Your task to perform on an android device: Open the calendar and show me this week's events? Image 0: 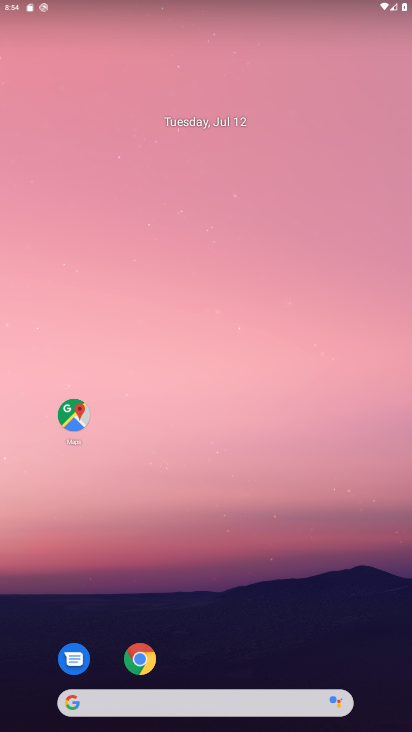
Step 0: drag from (244, 609) to (217, 109)
Your task to perform on an android device: Open the calendar and show me this week's events? Image 1: 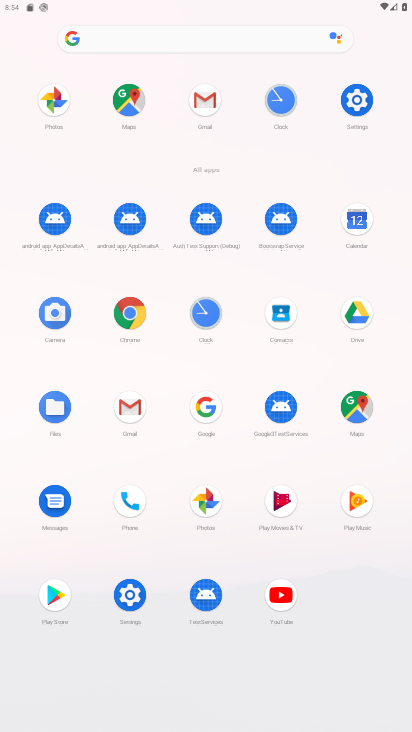
Step 1: click (355, 220)
Your task to perform on an android device: Open the calendar and show me this week's events? Image 2: 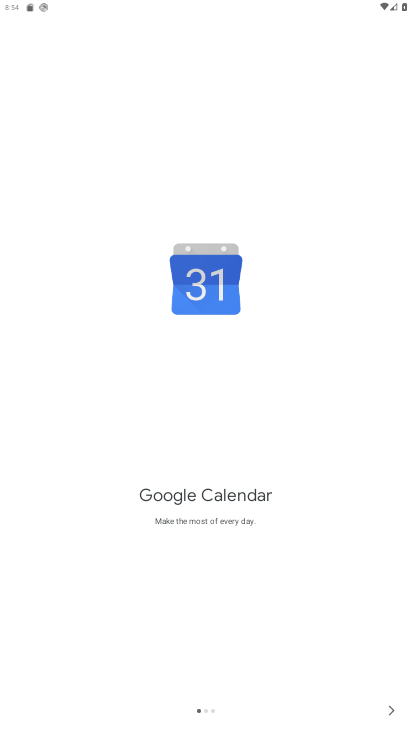
Step 2: click (384, 711)
Your task to perform on an android device: Open the calendar and show me this week's events? Image 3: 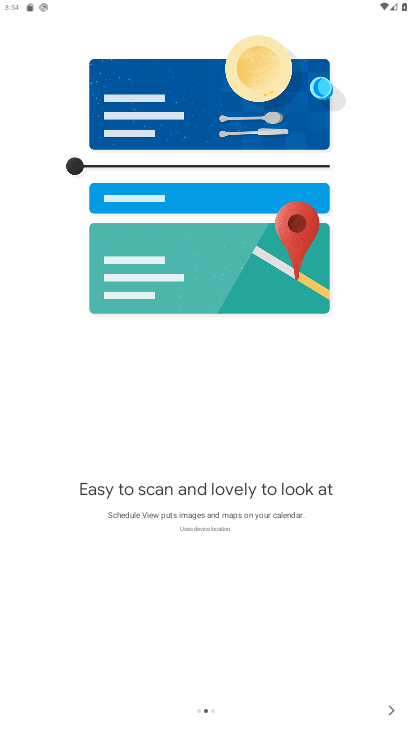
Step 3: click (384, 711)
Your task to perform on an android device: Open the calendar and show me this week's events? Image 4: 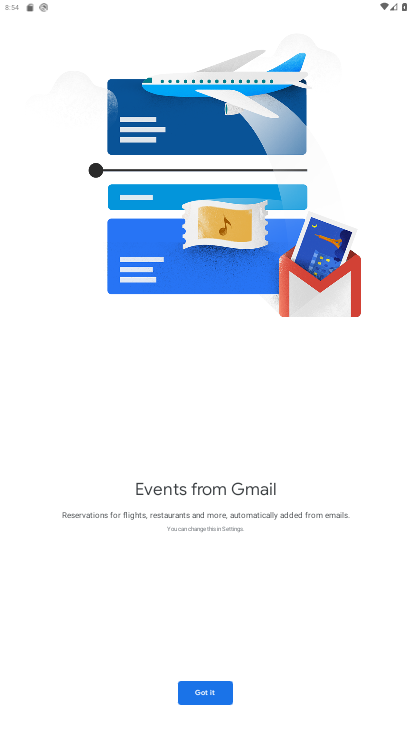
Step 4: click (209, 692)
Your task to perform on an android device: Open the calendar and show me this week's events? Image 5: 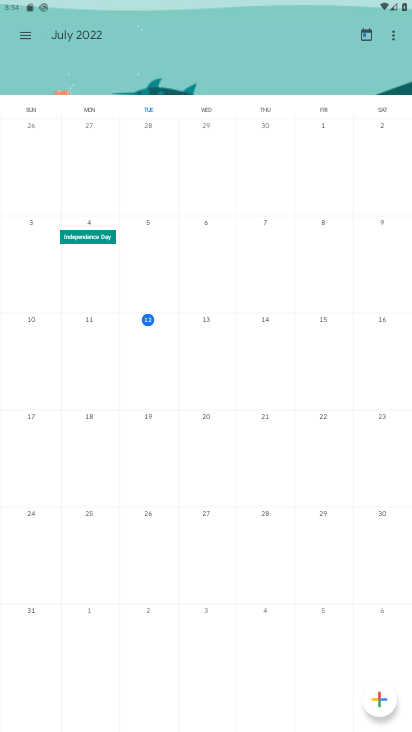
Step 5: click (139, 318)
Your task to perform on an android device: Open the calendar and show me this week's events? Image 6: 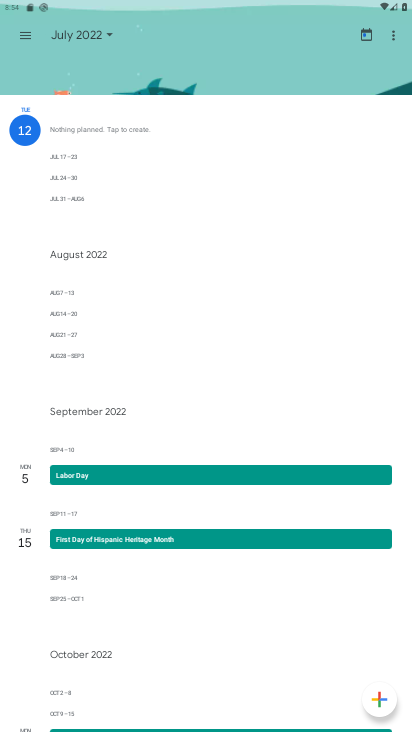
Step 6: task complete